Your task to perform on an android device: Search for pizza restaurants on Maps Image 0: 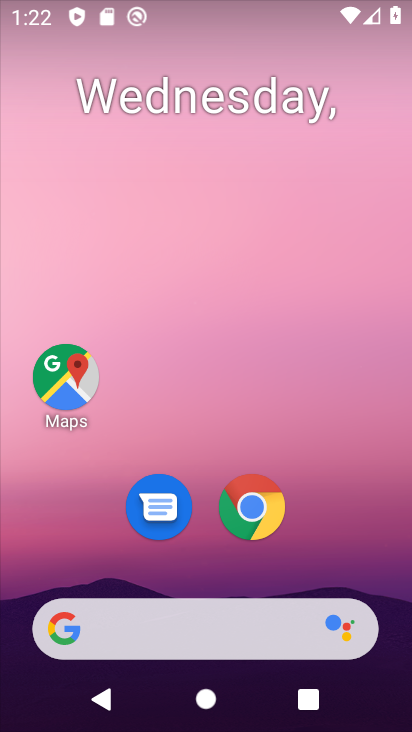
Step 0: drag from (339, 540) to (342, 178)
Your task to perform on an android device: Search for pizza restaurants on Maps Image 1: 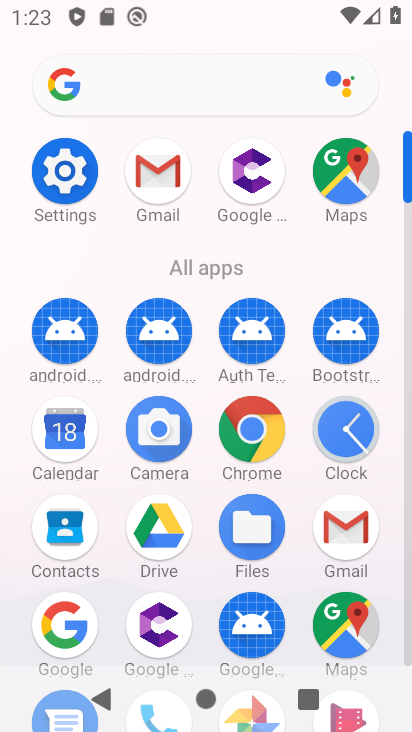
Step 1: click (337, 631)
Your task to perform on an android device: Search for pizza restaurants on Maps Image 2: 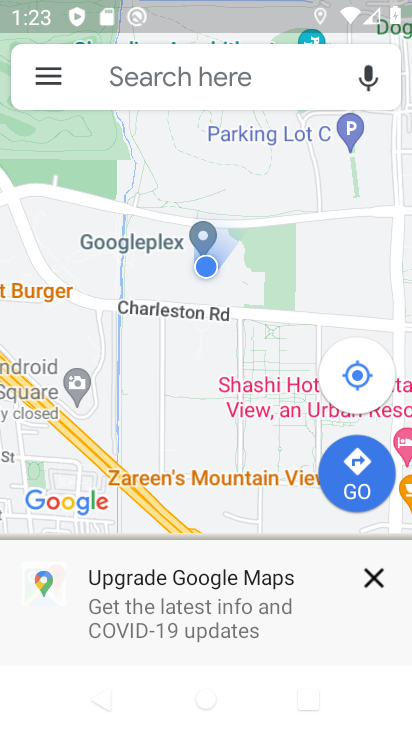
Step 2: click (173, 85)
Your task to perform on an android device: Search for pizza restaurants on Maps Image 3: 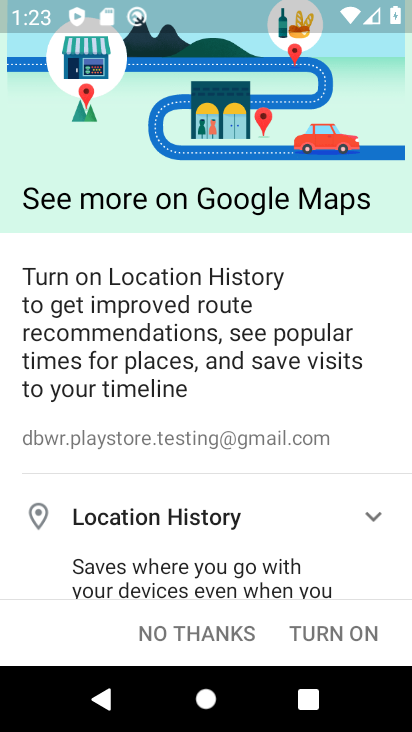
Step 3: click (204, 632)
Your task to perform on an android device: Search for pizza restaurants on Maps Image 4: 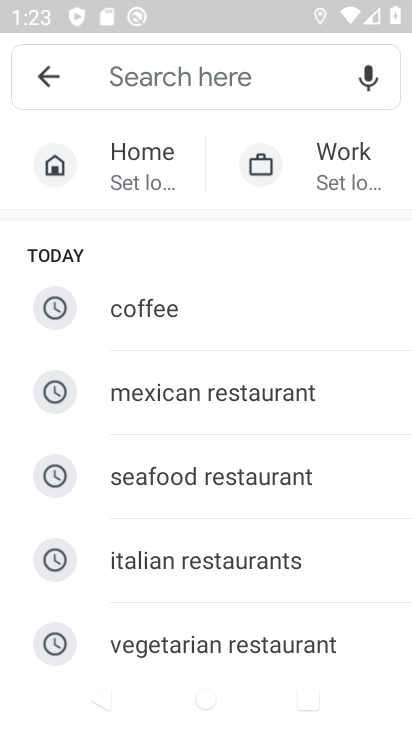
Step 4: click (228, 71)
Your task to perform on an android device: Search for pizza restaurants on Maps Image 5: 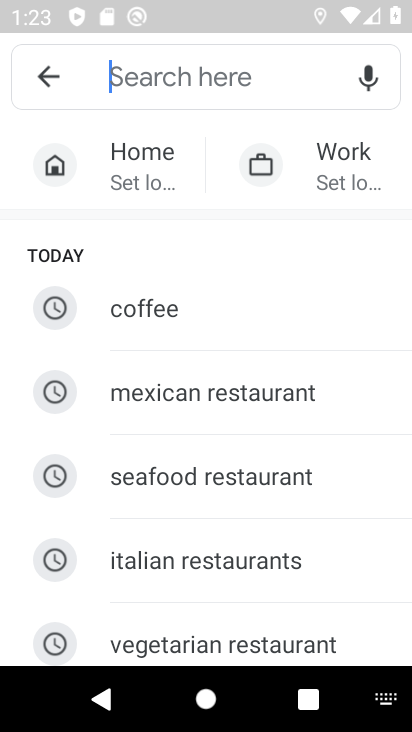
Step 5: type "pizza restaurants"
Your task to perform on an android device: Search for pizza restaurants on Maps Image 6: 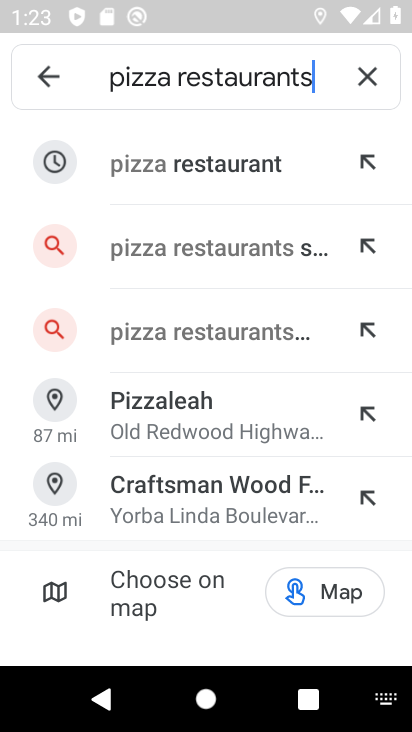
Step 6: click (109, 163)
Your task to perform on an android device: Search for pizza restaurants on Maps Image 7: 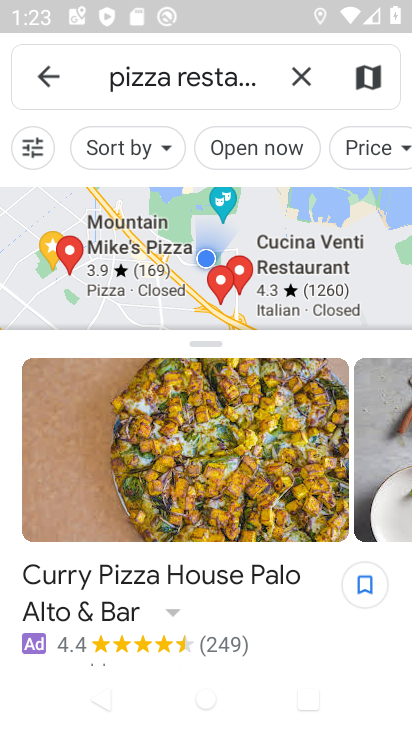
Step 7: task complete